Your task to perform on an android device: Go to Android settings Image 0: 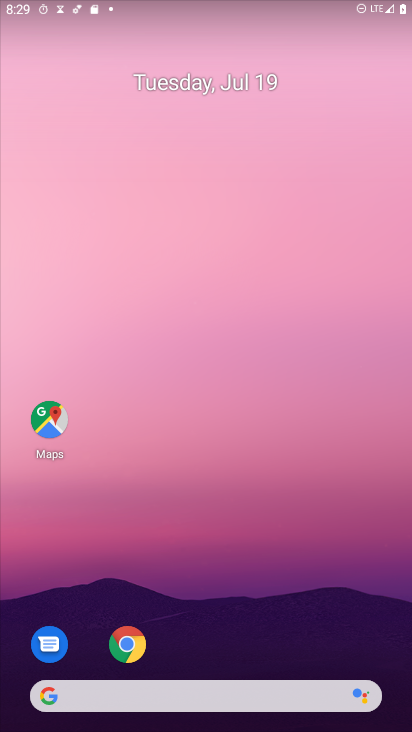
Step 0: drag from (20, 683) to (316, 192)
Your task to perform on an android device: Go to Android settings Image 1: 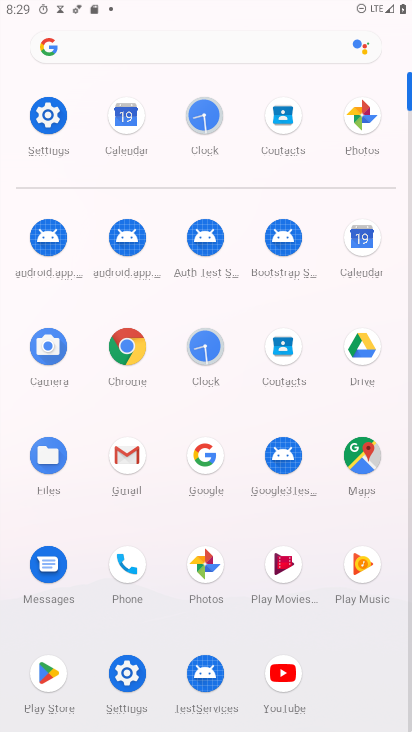
Step 1: click (127, 672)
Your task to perform on an android device: Go to Android settings Image 2: 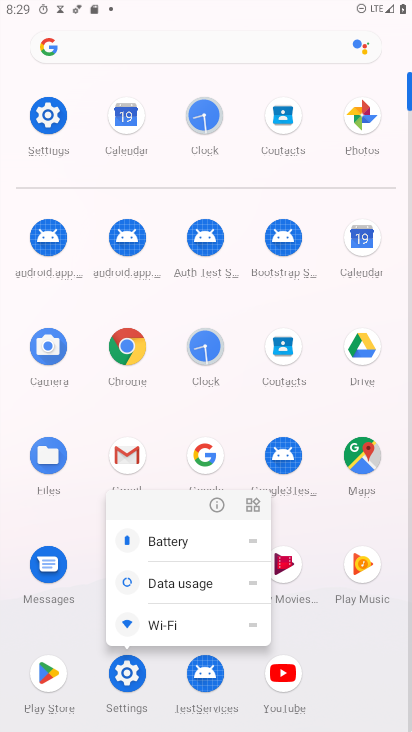
Step 2: click (127, 672)
Your task to perform on an android device: Go to Android settings Image 3: 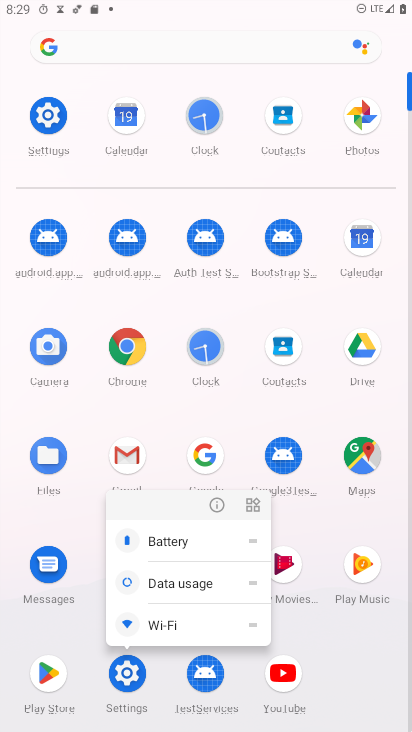
Step 3: click (128, 676)
Your task to perform on an android device: Go to Android settings Image 4: 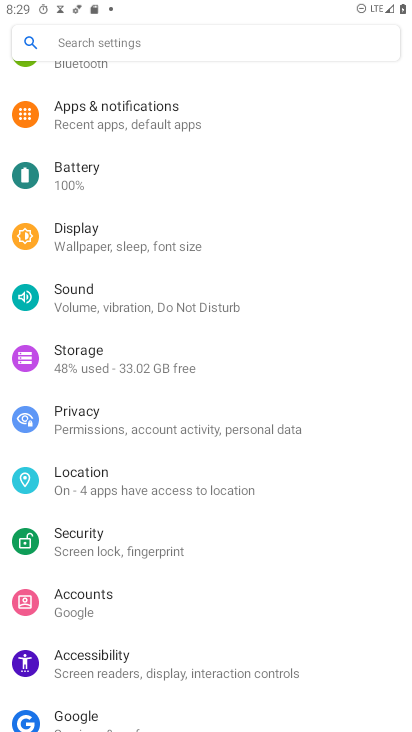
Step 4: click (259, 285)
Your task to perform on an android device: Go to Android settings Image 5: 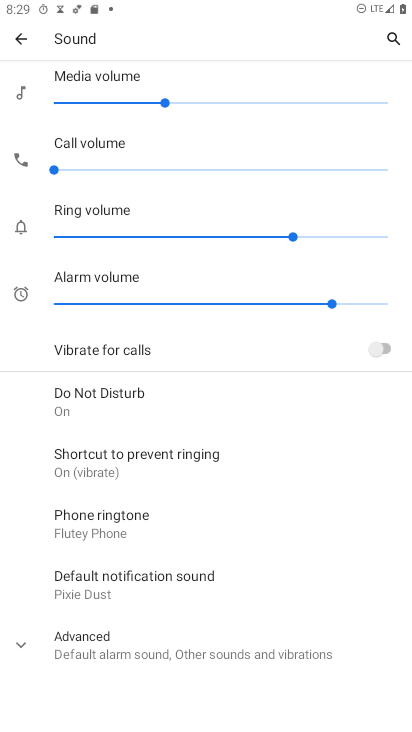
Step 5: click (25, 43)
Your task to perform on an android device: Go to Android settings Image 6: 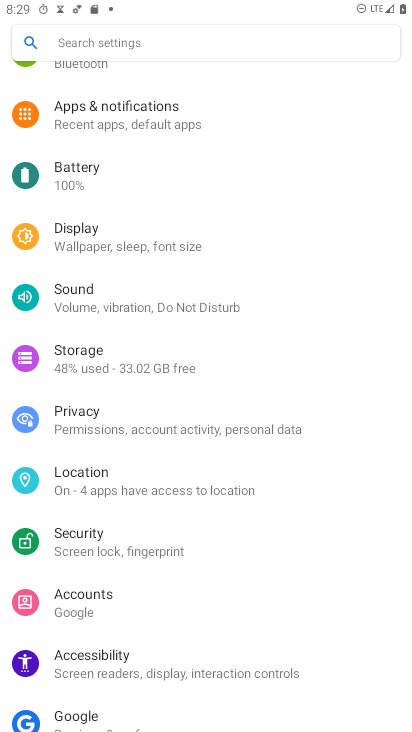
Step 6: drag from (331, 672) to (405, 1)
Your task to perform on an android device: Go to Android settings Image 7: 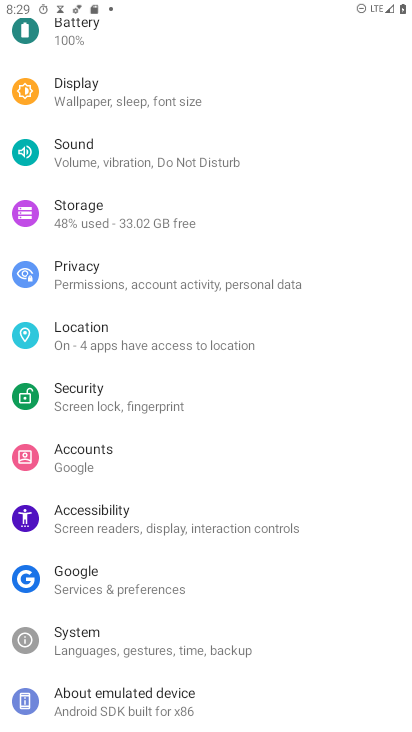
Step 7: click (140, 695)
Your task to perform on an android device: Go to Android settings Image 8: 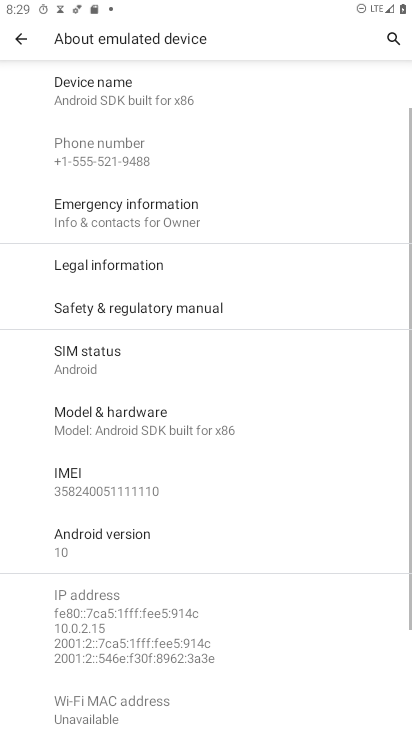
Step 8: click (150, 540)
Your task to perform on an android device: Go to Android settings Image 9: 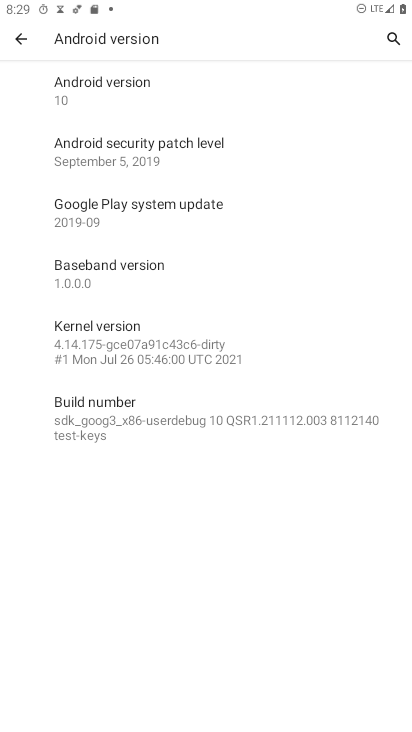
Step 9: task complete